Your task to perform on an android device: empty trash in the gmail app Image 0: 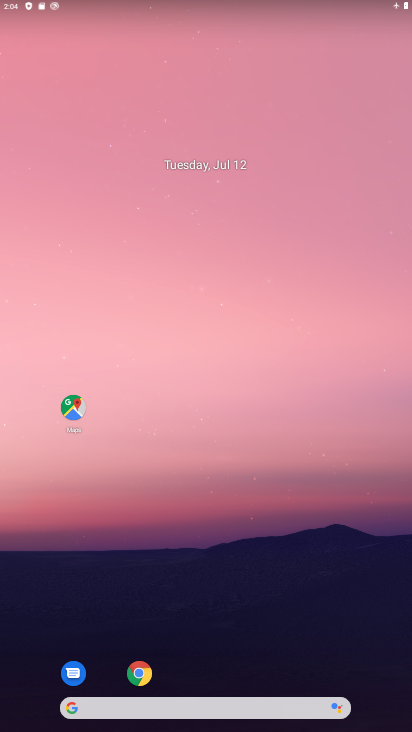
Step 0: drag from (196, 611) to (199, 365)
Your task to perform on an android device: empty trash in the gmail app Image 1: 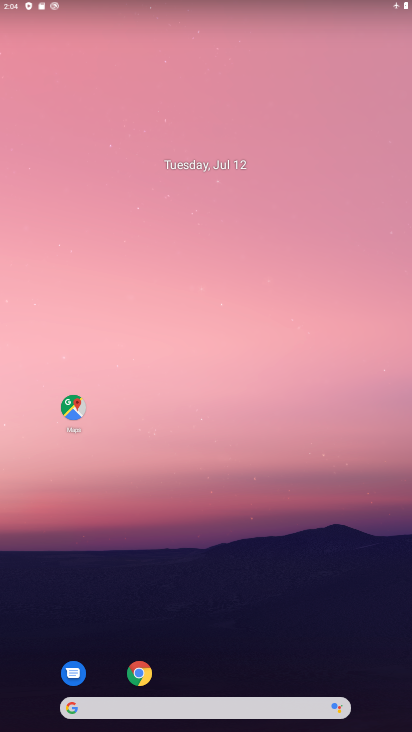
Step 1: drag from (170, 534) to (162, 241)
Your task to perform on an android device: empty trash in the gmail app Image 2: 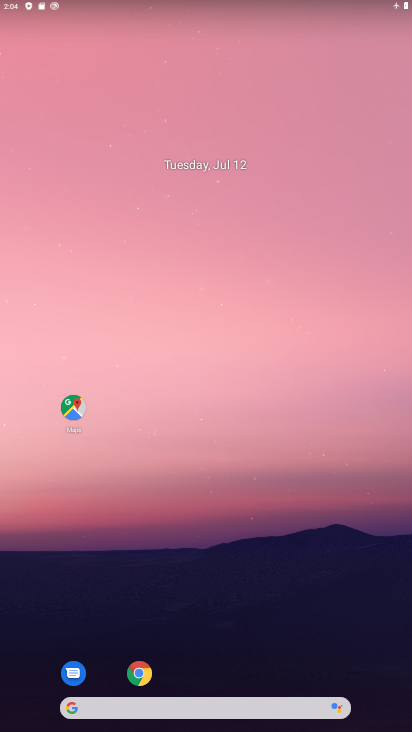
Step 2: drag from (197, 604) to (225, 353)
Your task to perform on an android device: empty trash in the gmail app Image 3: 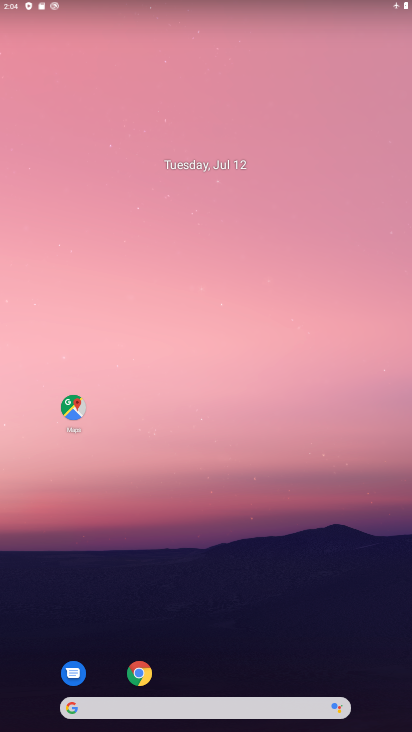
Step 3: drag from (224, 652) to (238, 294)
Your task to perform on an android device: empty trash in the gmail app Image 4: 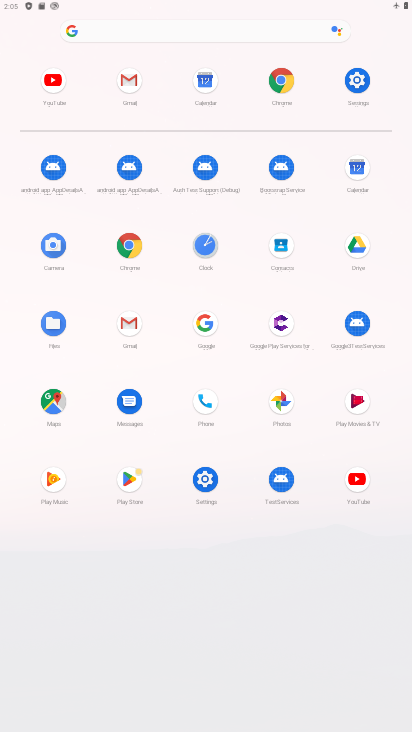
Step 4: click (140, 326)
Your task to perform on an android device: empty trash in the gmail app Image 5: 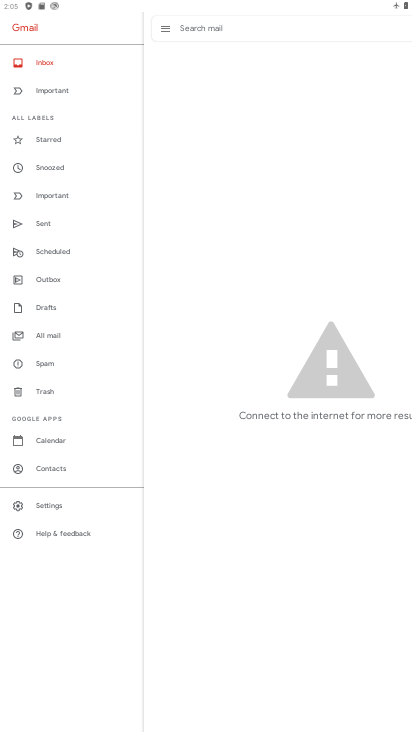
Step 5: click (55, 397)
Your task to perform on an android device: empty trash in the gmail app Image 6: 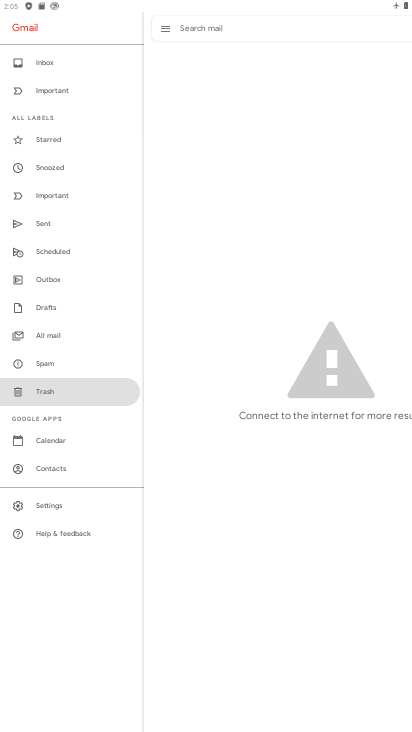
Step 6: task complete